Your task to perform on an android device: turn on airplane mode Image 0: 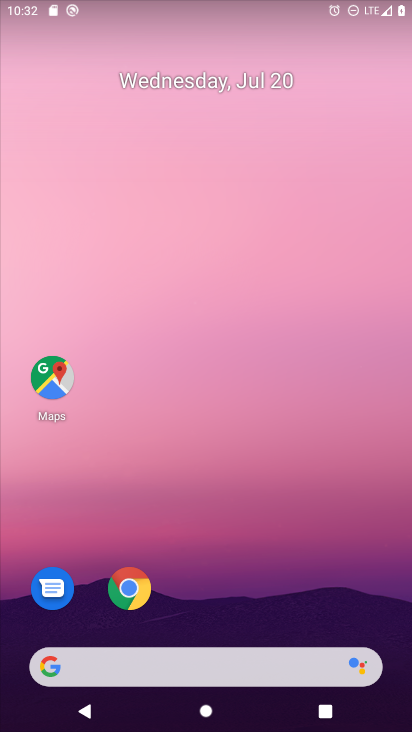
Step 0: drag from (232, 268) to (231, 542)
Your task to perform on an android device: turn on airplane mode Image 1: 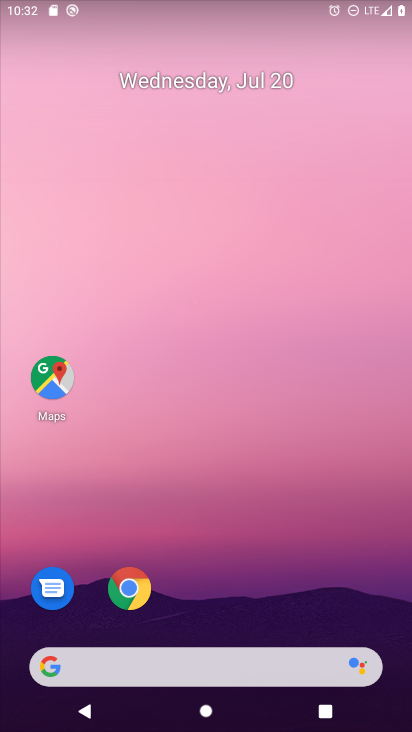
Step 1: drag from (301, 8) to (276, 638)
Your task to perform on an android device: turn on airplane mode Image 2: 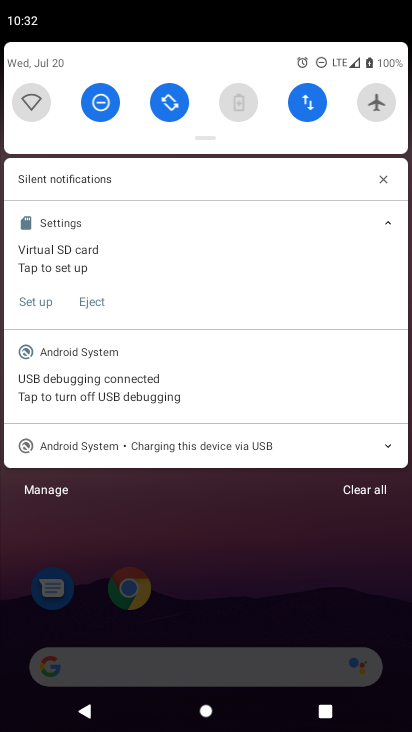
Step 2: click (382, 95)
Your task to perform on an android device: turn on airplane mode Image 3: 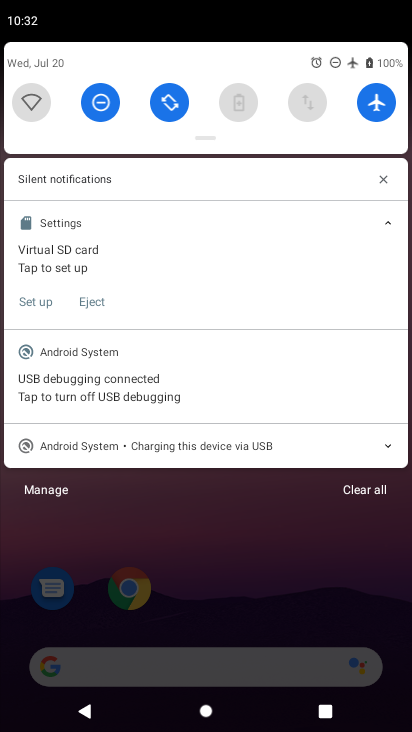
Step 3: task complete